Your task to perform on an android device: see sites visited before in the chrome app Image 0: 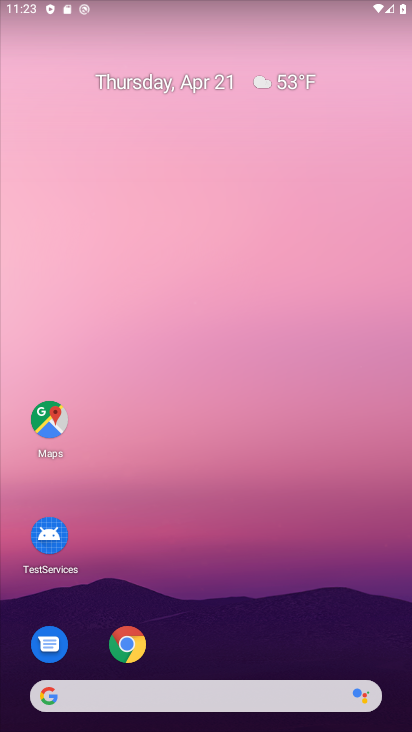
Step 0: drag from (236, 644) to (262, 134)
Your task to perform on an android device: see sites visited before in the chrome app Image 1: 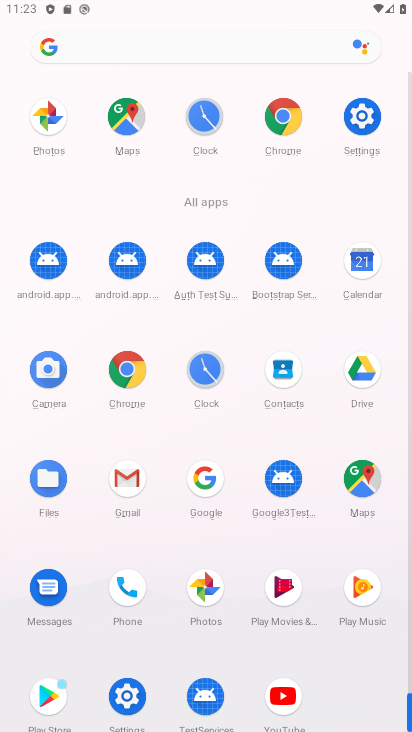
Step 1: click (134, 369)
Your task to perform on an android device: see sites visited before in the chrome app Image 2: 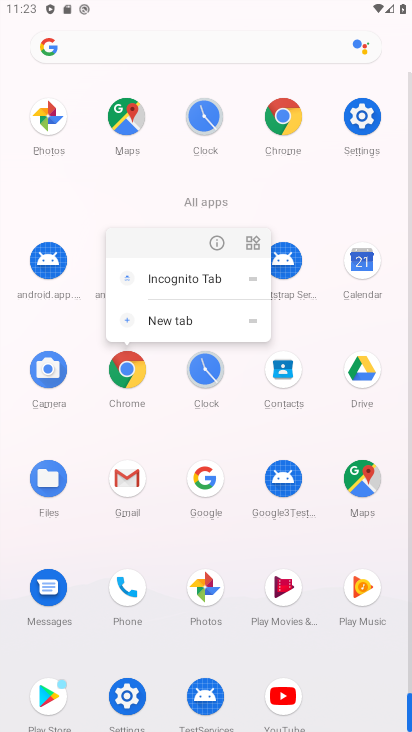
Step 2: click (114, 368)
Your task to perform on an android device: see sites visited before in the chrome app Image 3: 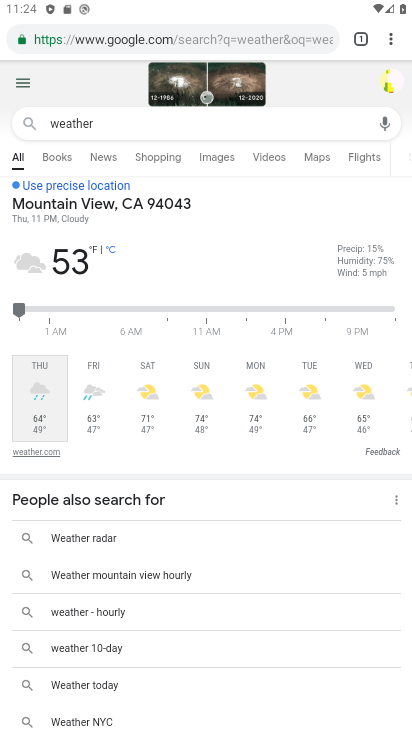
Step 3: task complete